Your task to perform on an android device: find photos in the google photos app Image 0: 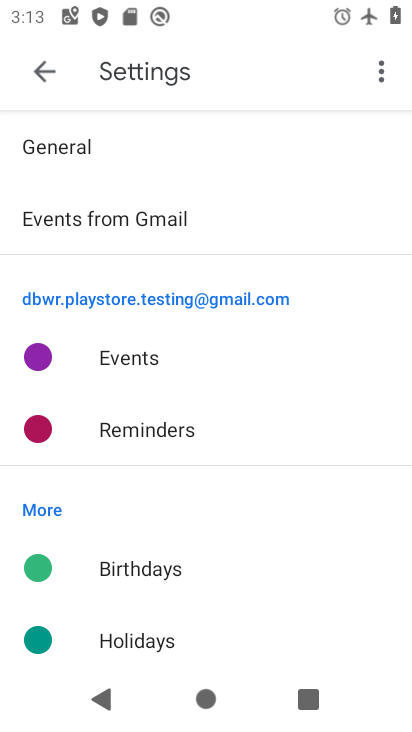
Step 0: press back button
Your task to perform on an android device: find photos in the google photos app Image 1: 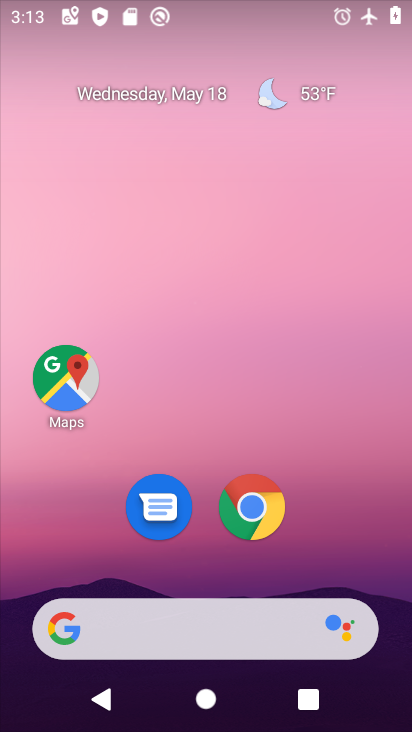
Step 1: drag from (335, 554) to (164, 146)
Your task to perform on an android device: find photos in the google photos app Image 2: 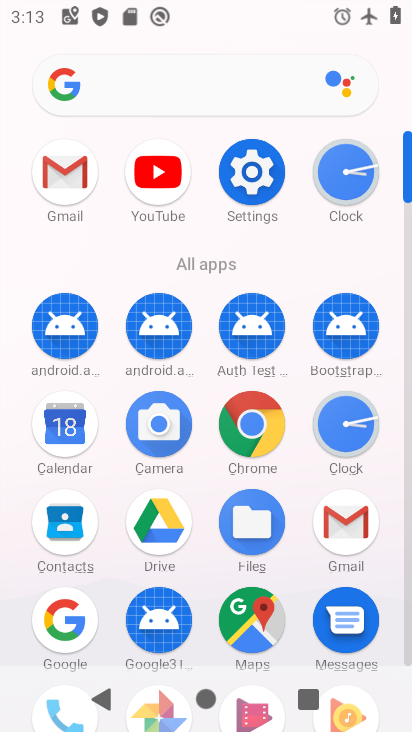
Step 2: drag from (208, 527) to (183, 248)
Your task to perform on an android device: find photos in the google photos app Image 3: 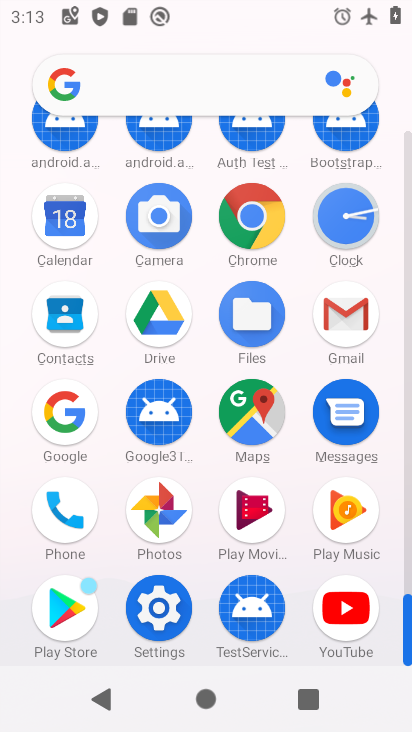
Step 3: click (158, 511)
Your task to perform on an android device: find photos in the google photos app Image 4: 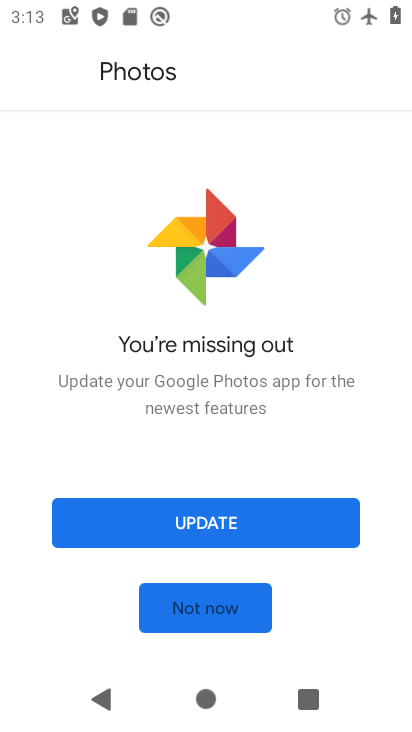
Step 4: click (196, 523)
Your task to perform on an android device: find photos in the google photos app Image 5: 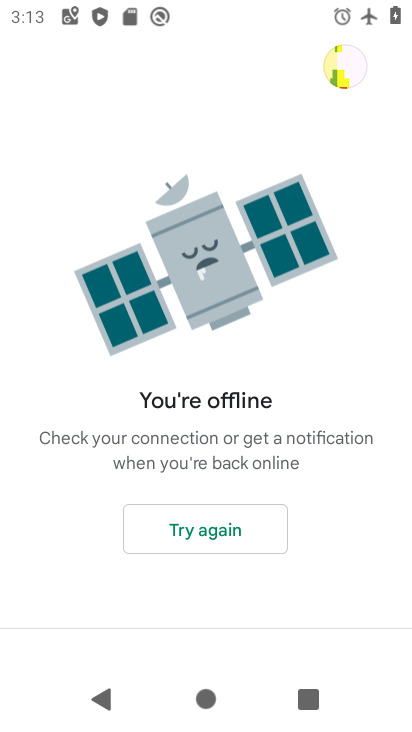
Step 5: click (197, 536)
Your task to perform on an android device: find photos in the google photos app Image 6: 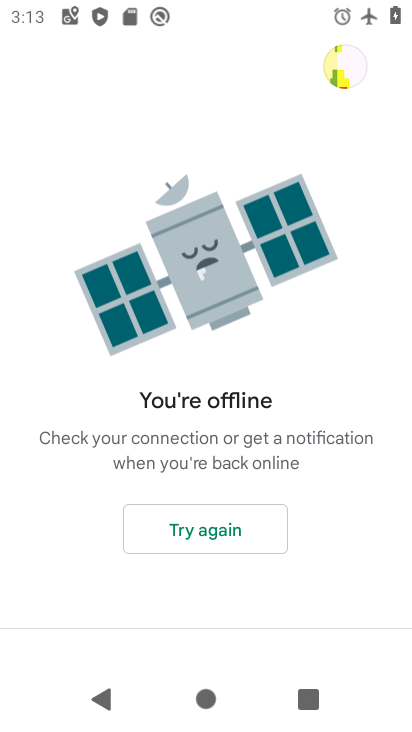
Step 6: click (211, 537)
Your task to perform on an android device: find photos in the google photos app Image 7: 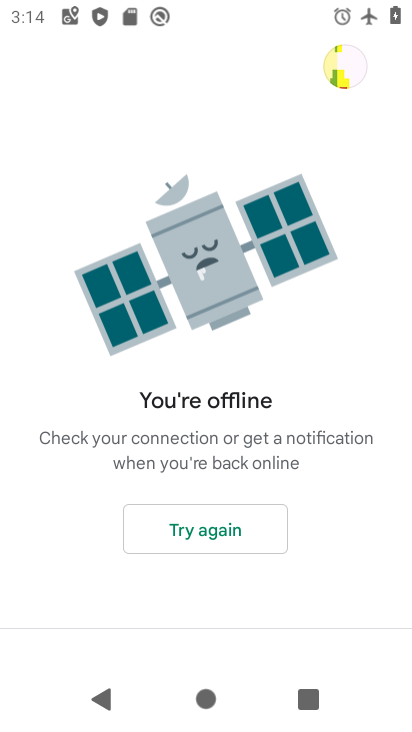
Step 7: press back button
Your task to perform on an android device: find photos in the google photos app Image 8: 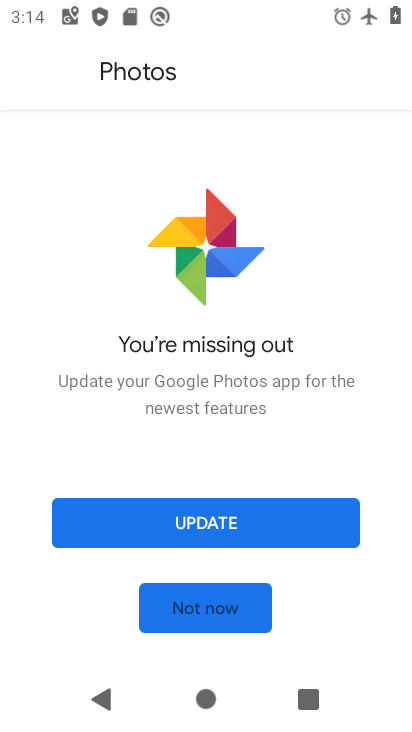
Step 8: click (189, 606)
Your task to perform on an android device: find photos in the google photos app Image 9: 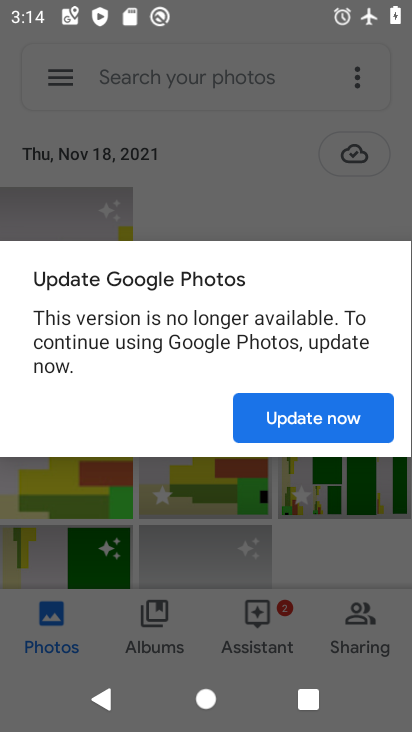
Step 9: click (285, 420)
Your task to perform on an android device: find photos in the google photos app Image 10: 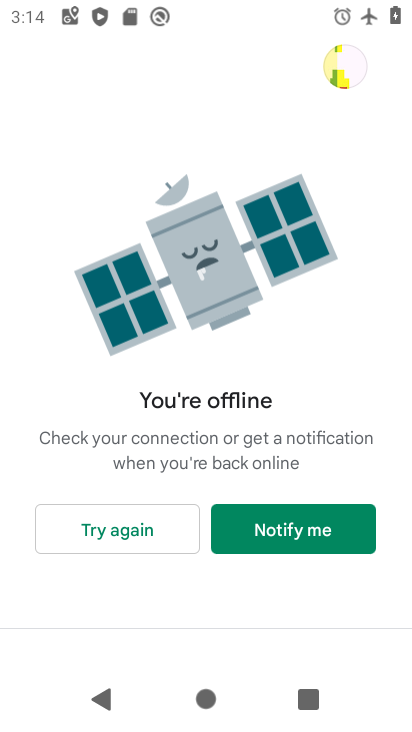
Step 10: click (275, 516)
Your task to perform on an android device: find photos in the google photos app Image 11: 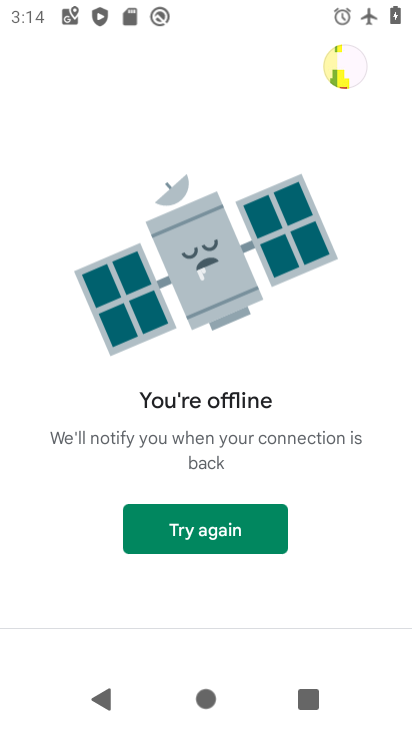
Step 11: click (196, 546)
Your task to perform on an android device: find photos in the google photos app Image 12: 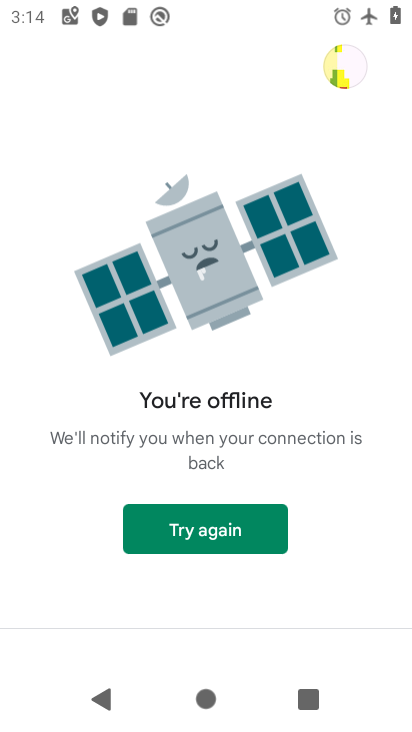
Step 12: task complete